Your task to perform on an android device: Open Amazon Image 0: 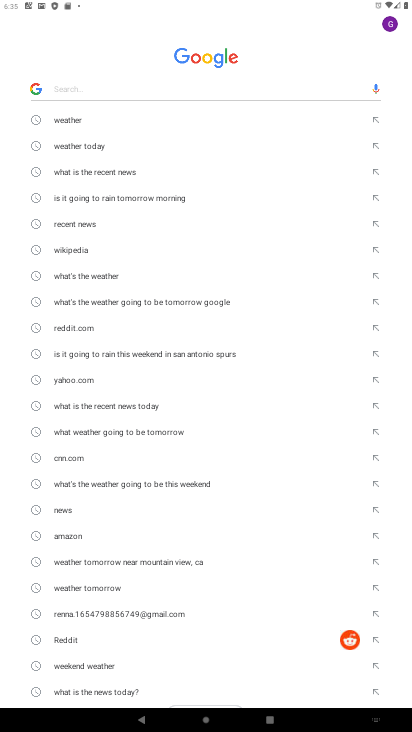
Step 0: press home button
Your task to perform on an android device: Open Amazon Image 1: 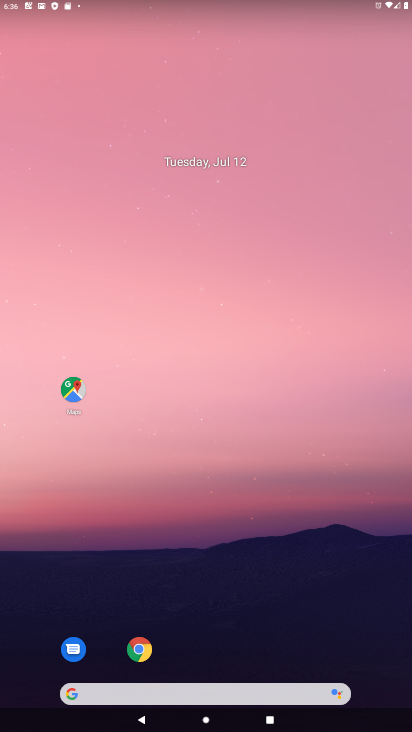
Step 1: drag from (220, 690) to (272, 253)
Your task to perform on an android device: Open Amazon Image 2: 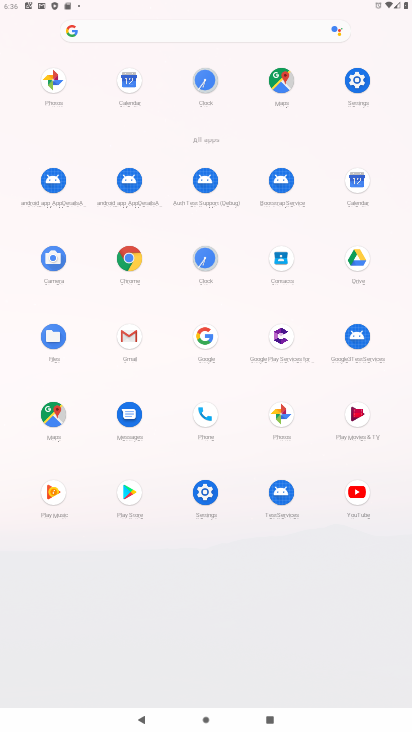
Step 2: click (126, 259)
Your task to perform on an android device: Open Amazon Image 3: 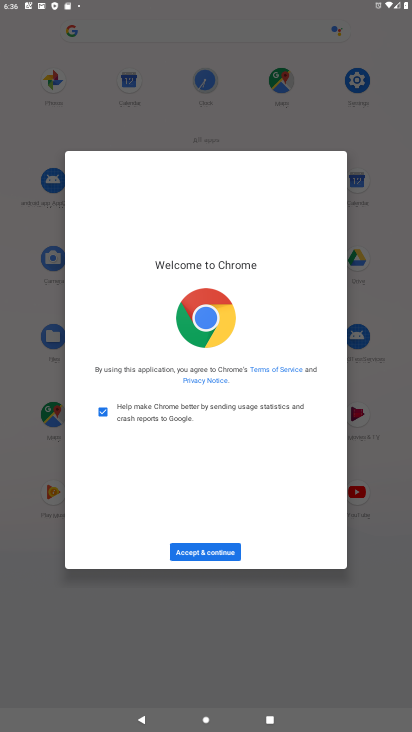
Step 3: click (219, 553)
Your task to perform on an android device: Open Amazon Image 4: 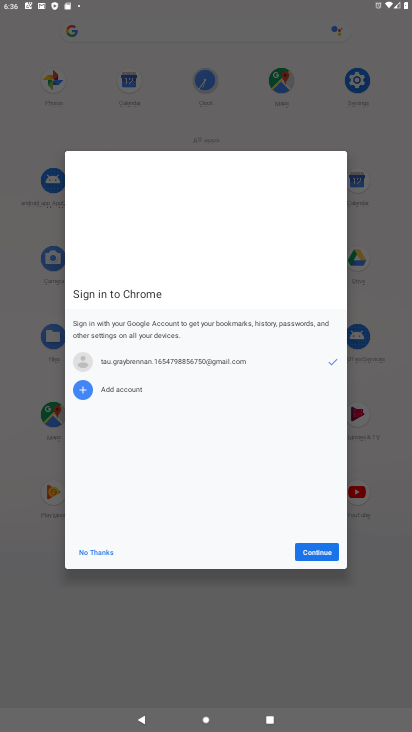
Step 4: click (325, 552)
Your task to perform on an android device: Open Amazon Image 5: 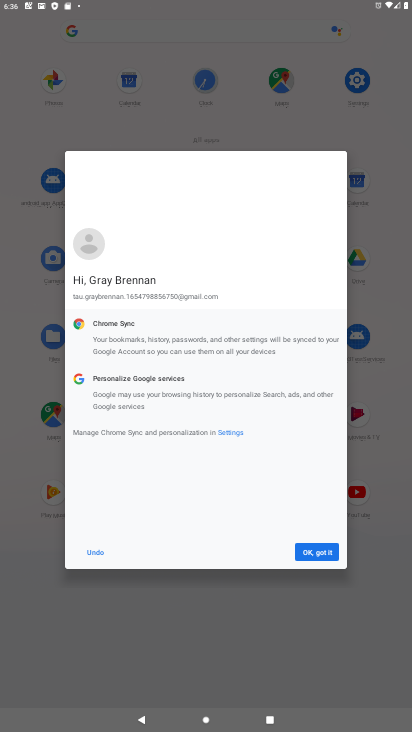
Step 5: click (325, 552)
Your task to perform on an android device: Open Amazon Image 6: 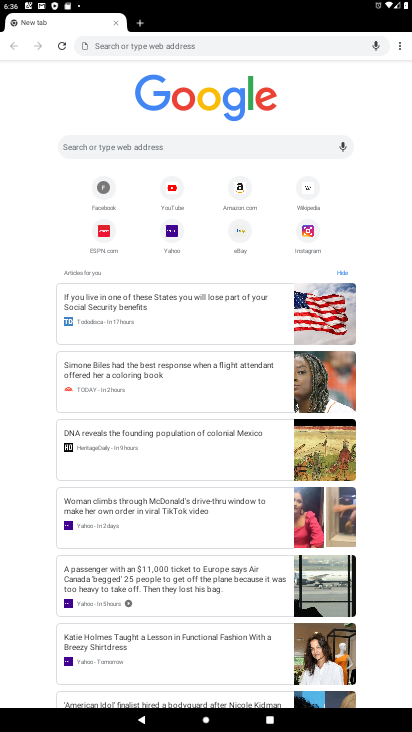
Step 6: click (239, 191)
Your task to perform on an android device: Open Amazon Image 7: 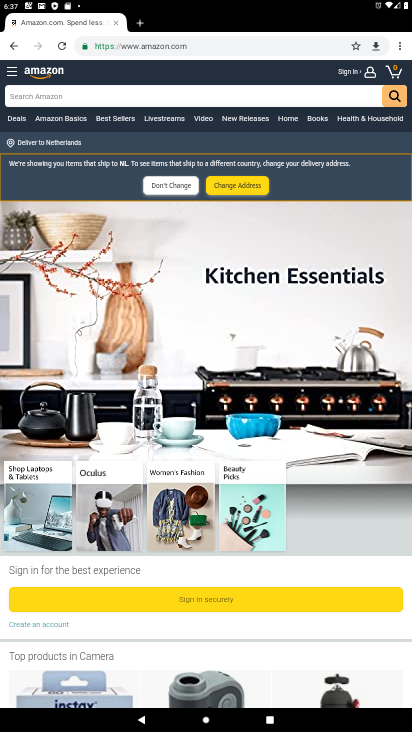
Step 7: task complete